Your task to perform on an android device: Go to sound settings Image 0: 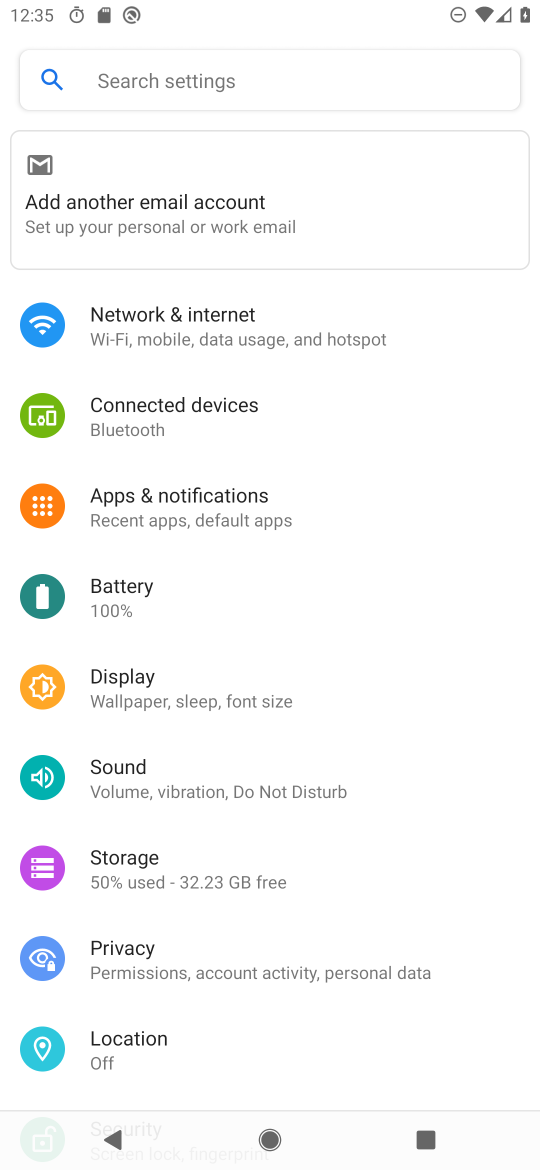
Step 0: click (151, 790)
Your task to perform on an android device: Go to sound settings Image 1: 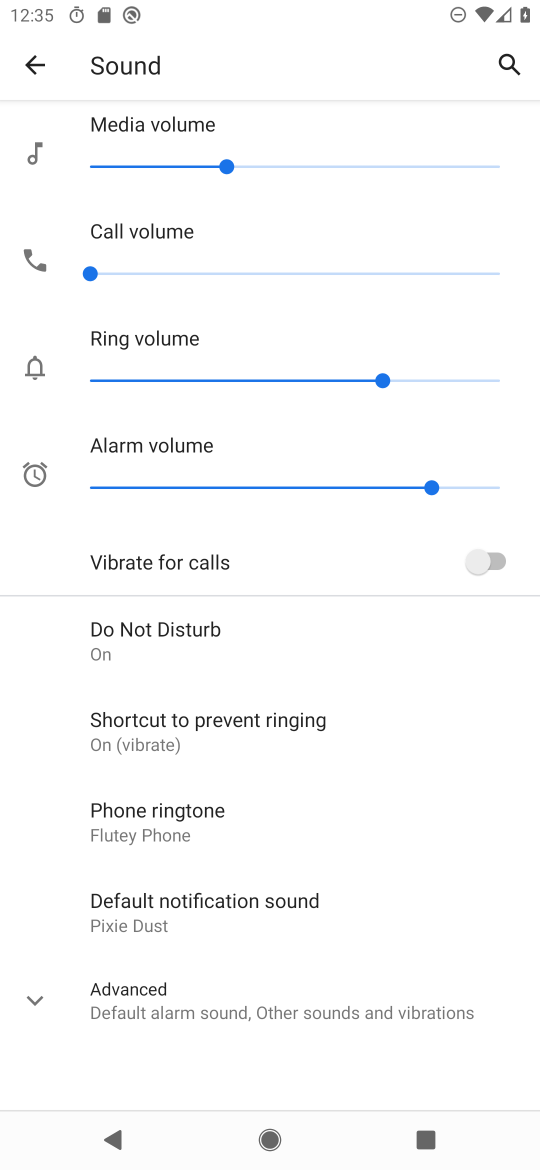
Step 1: task complete